Your task to perform on an android device: Open calendar and show me the third week of next month Image 0: 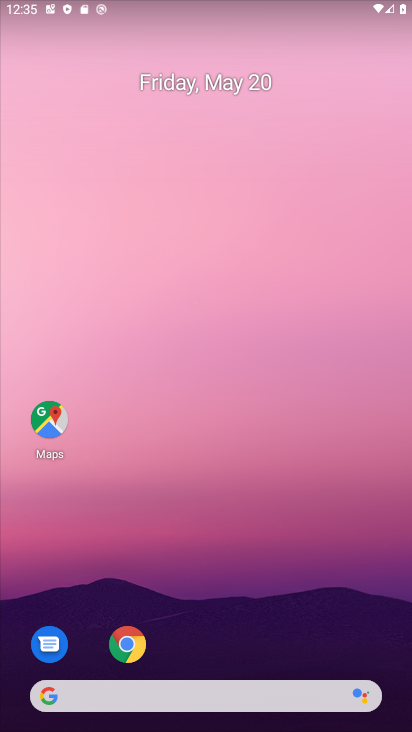
Step 0: drag from (313, 649) to (373, 11)
Your task to perform on an android device: Open calendar and show me the third week of next month Image 1: 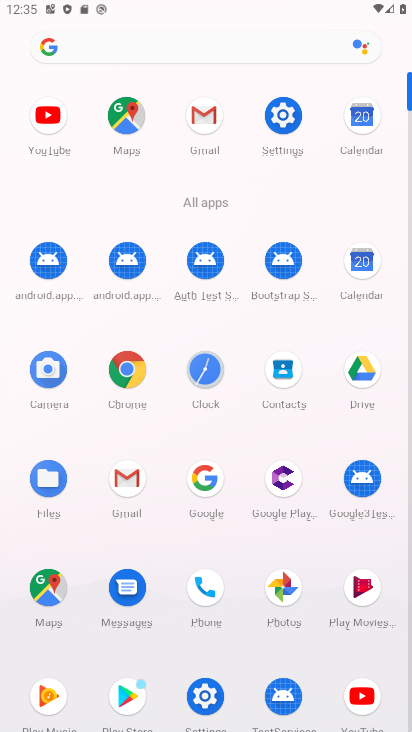
Step 1: click (364, 126)
Your task to perform on an android device: Open calendar and show me the third week of next month Image 2: 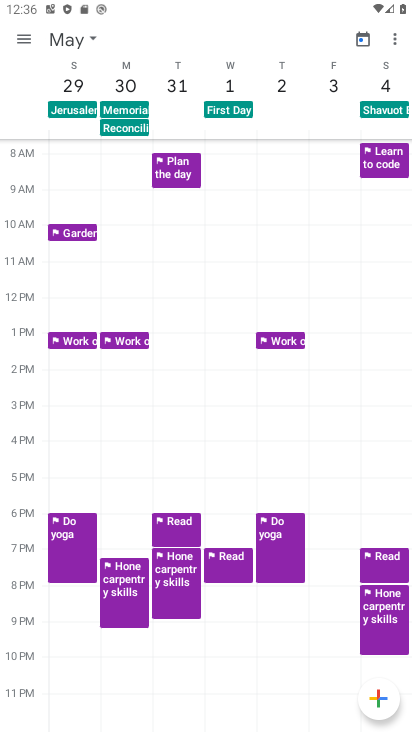
Step 2: task complete